Your task to perform on an android device: change the upload size in google photos Image 0: 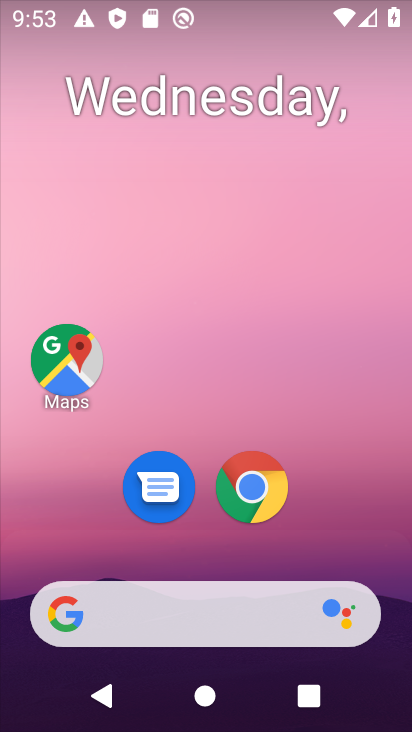
Step 0: drag from (202, 564) to (198, 2)
Your task to perform on an android device: change the upload size in google photos Image 1: 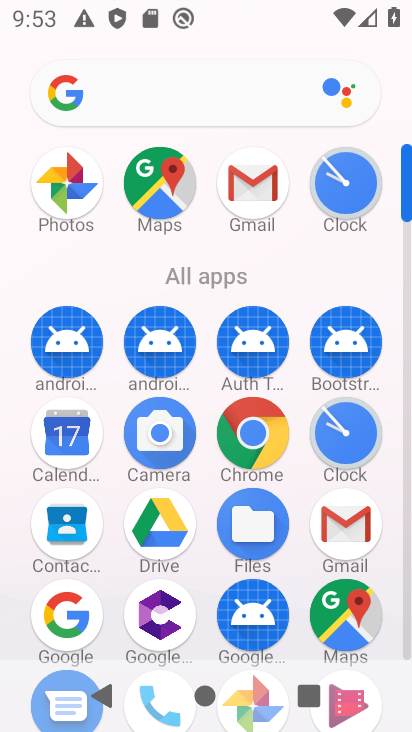
Step 1: click (72, 183)
Your task to perform on an android device: change the upload size in google photos Image 2: 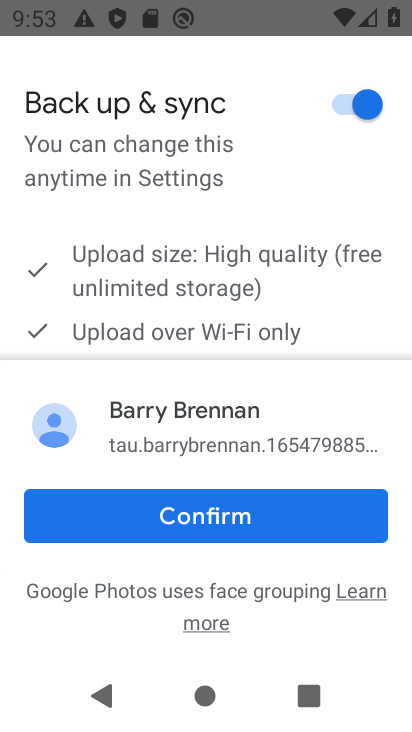
Step 2: click (208, 526)
Your task to perform on an android device: change the upload size in google photos Image 3: 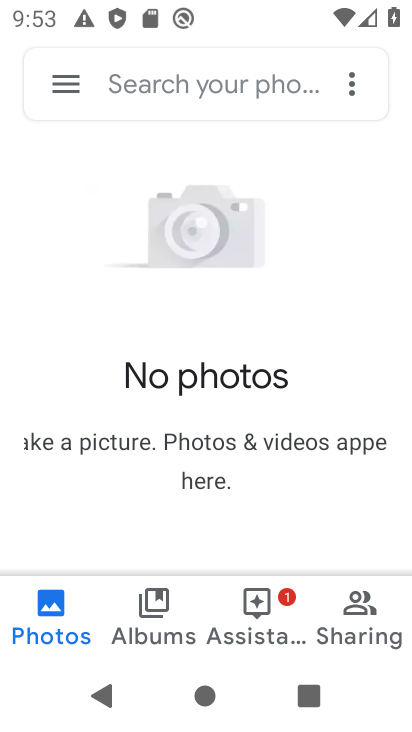
Step 3: click (61, 78)
Your task to perform on an android device: change the upload size in google photos Image 4: 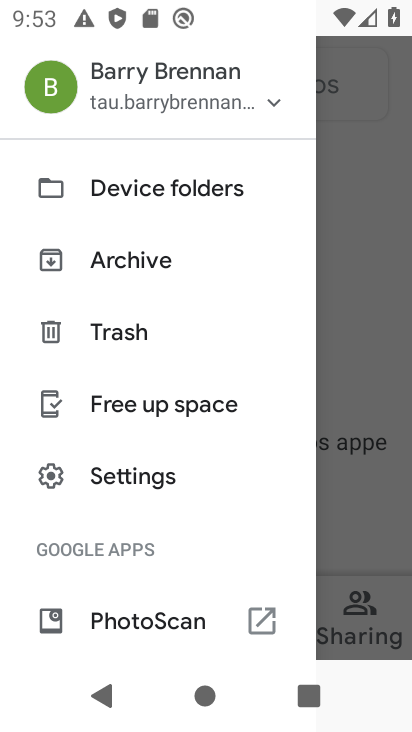
Step 4: click (131, 466)
Your task to perform on an android device: change the upload size in google photos Image 5: 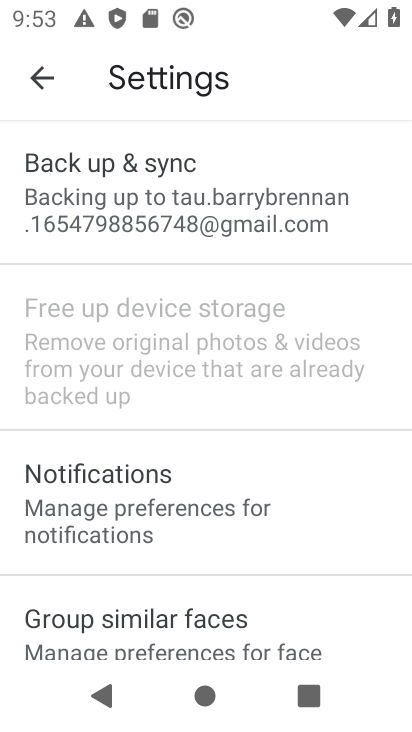
Step 5: drag from (159, 511) to (159, 424)
Your task to perform on an android device: change the upload size in google photos Image 6: 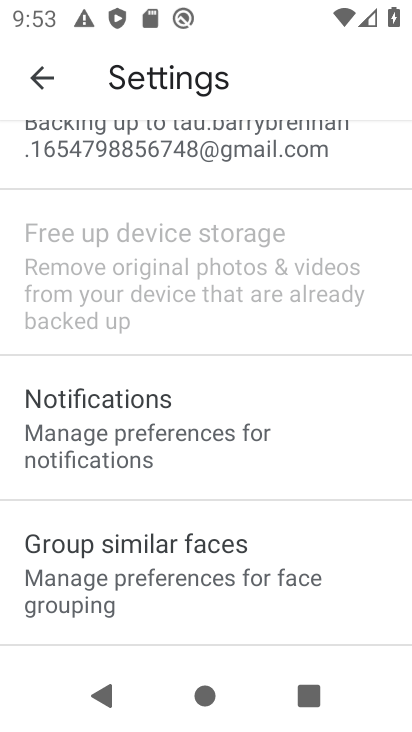
Step 6: click (130, 131)
Your task to perform on an android device: change the upload size in google photos Image 7: 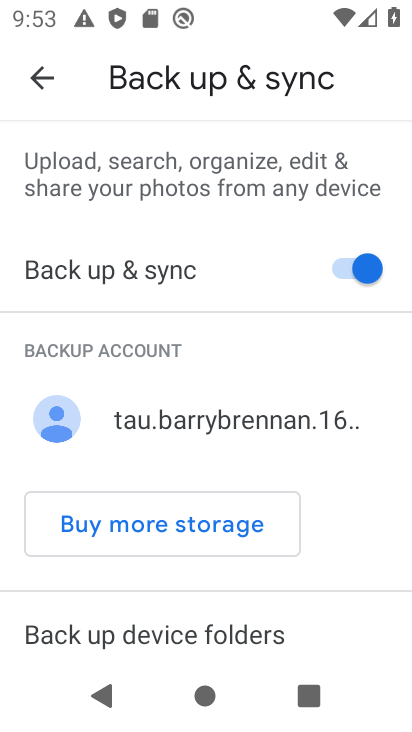
Step 7: drag from (323, 530) to (297, 322)
Your task to perform on an android device: change the upload size in google photos Image 8: 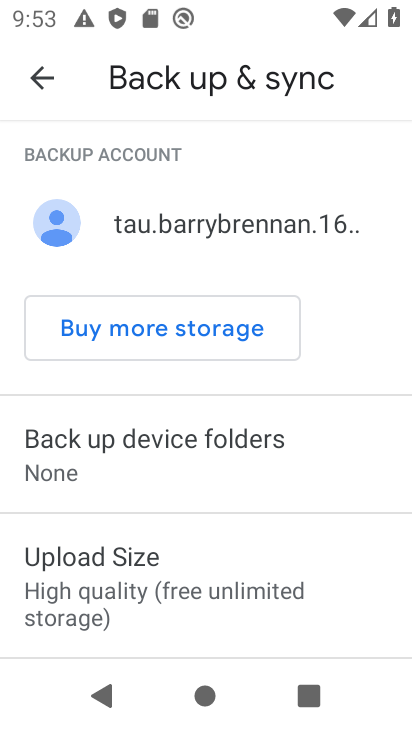
Step 8: click (101, 547)
Your task to perform on an android device: change the upload size in google photos Image 9: 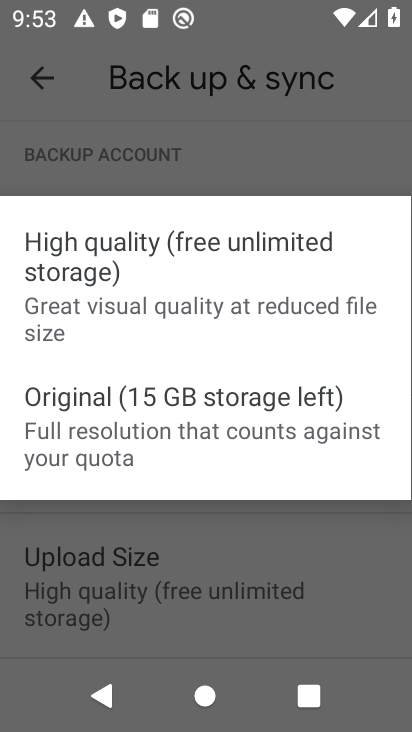
Step 9: click (120, 267)
Your task to perform on an android device: change the upload size in google photos Image 10: 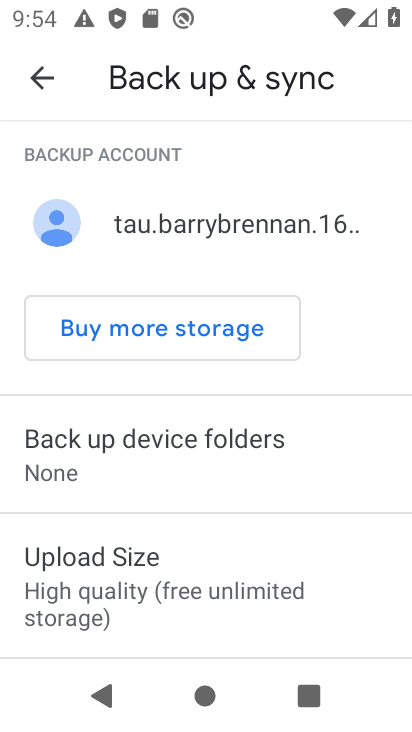
Step 10: task complete